Your task to perform on an android device: Play the last video I watched on Youtube Image 0: 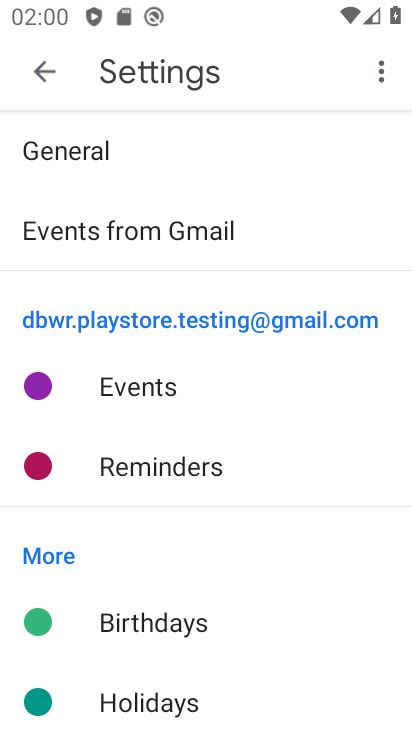
Step 0: press home button
Your task to perform on an android device: Play the last video I watched on Youtube Image 1: 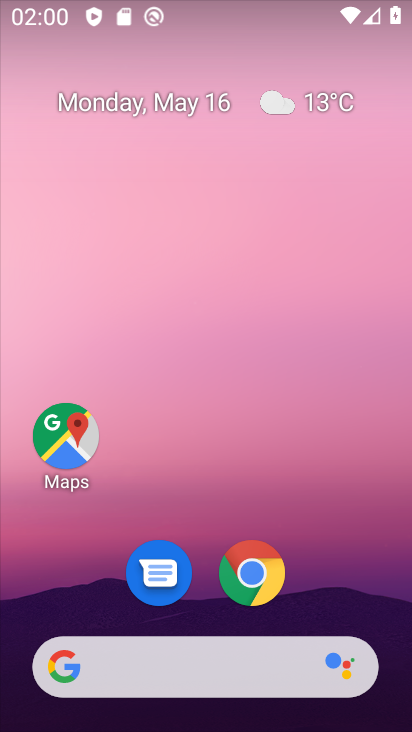
Step 1: drag from (211, 486) to (274, 15)
Your task to perform on an android device: Play the last video I watched on Youtube Image 2: 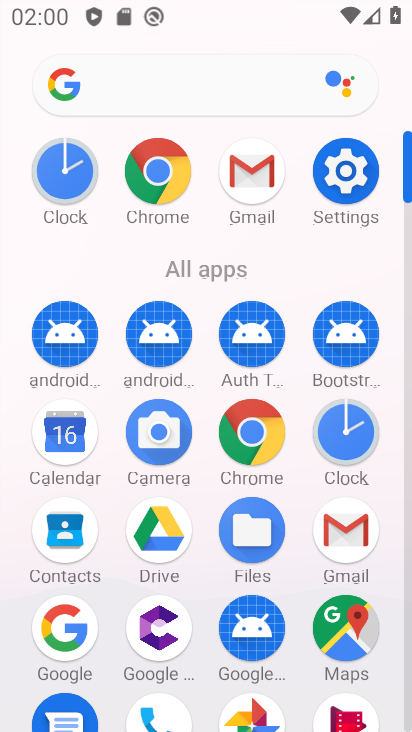
Step 2: drag from (192, 688) to (206, 263)
Your task to perform on an android device: Play the last video I watched on Youtube Image 3: 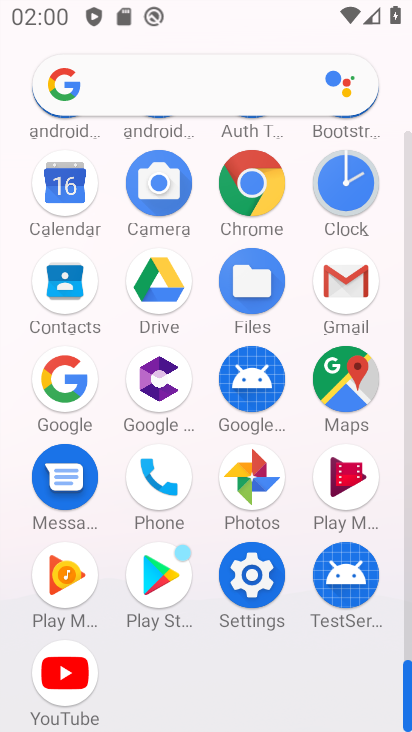
Step 3: click (83, 669)
Your task to perform on an android device: Play the last video I watched on Youtube Image 4: 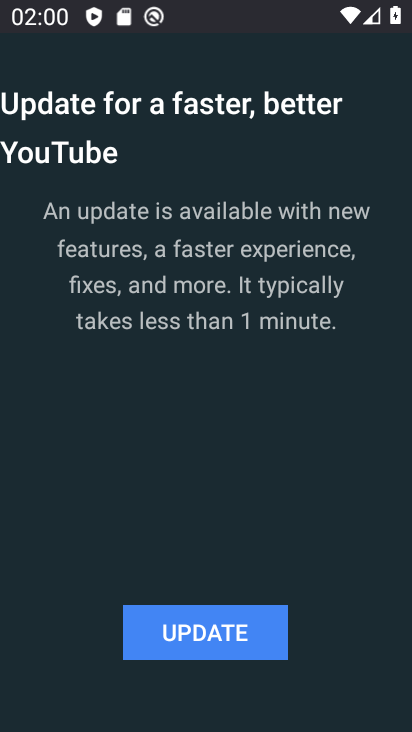
Step 4: click (232, 633)
Your task to perform on an android device: Play the last video I watched on Youtube Image 5: 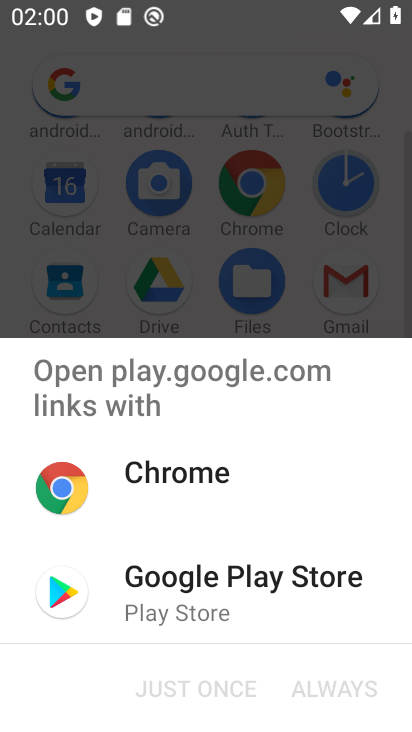
Step 5: click (217, 586)
Your task to perform on an android device: Play the last video I watched on Youtube Image 6: 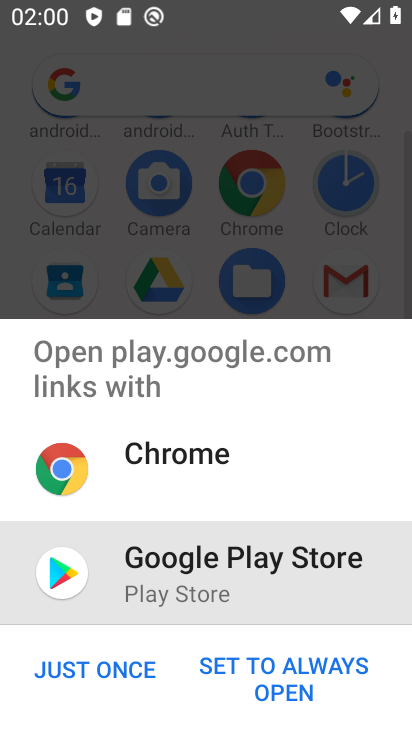
Step 6: click (102, 659)
Your task to perform on an android device: Play the last video I watched on Youtube Image 7: 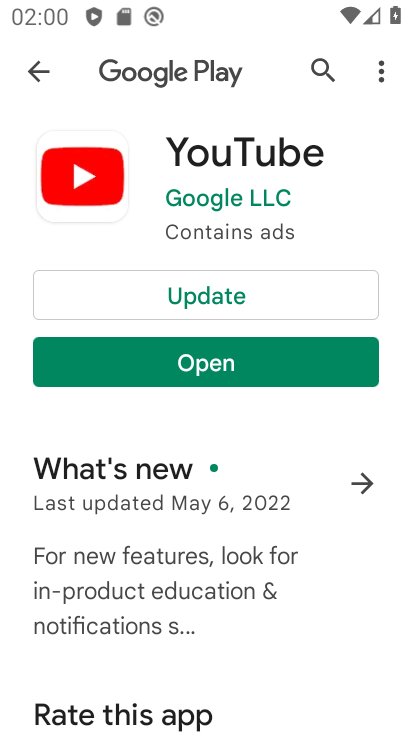
Step 7: click (228, 287)
Your task to perform on an android device: Play the last video I watched on Youtube Image 8: 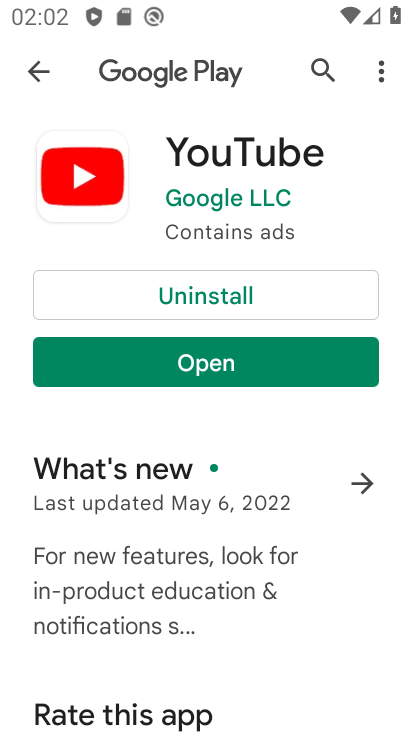
Step 8: click (231, 355)
Your task to perform on an android device: Play the last video I watched on Youtube Image 9: 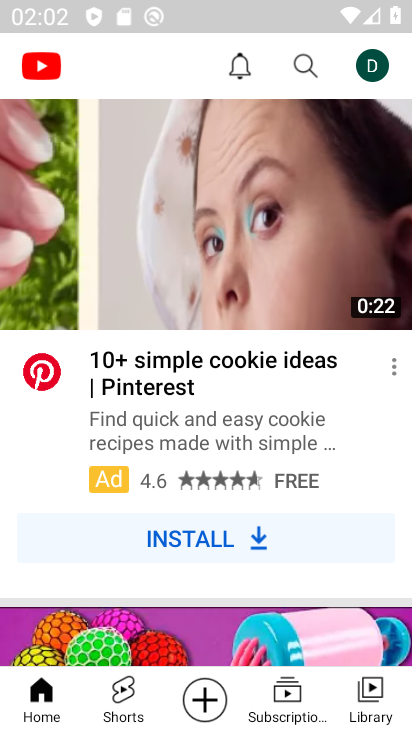
Step 9: click (374, 694)
Your task to perform on an android device: Play the last video I watched on Youtube Image 10: 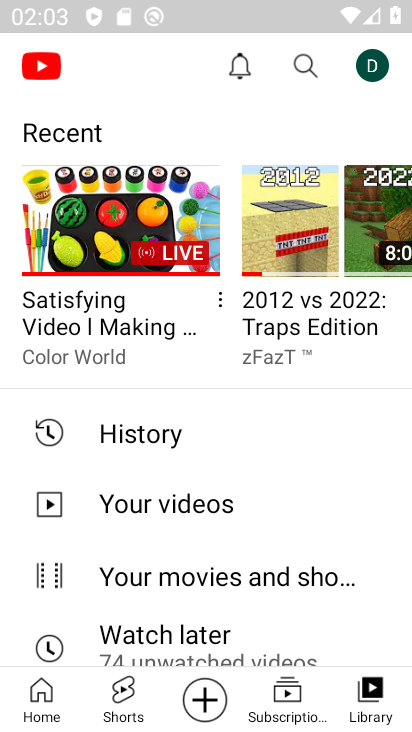
Step 10: click (143, 228)
Your task to perform on an android device: Play the last video I watched on Youtube Image 11: 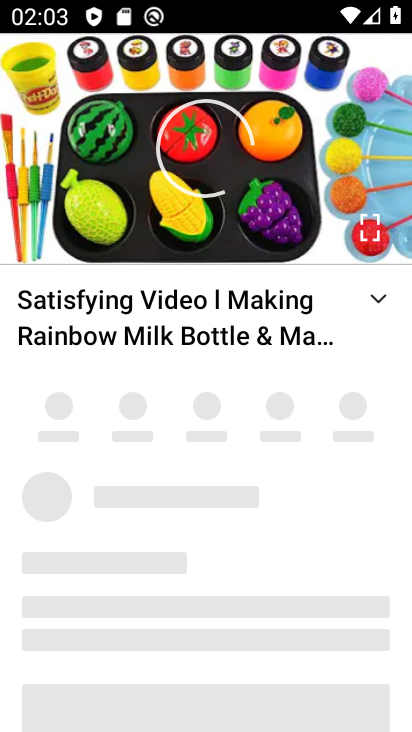
Step 11: click (143, 228)
Your task to perform on an android device: Play the last video I watched on Youtube Image 12: 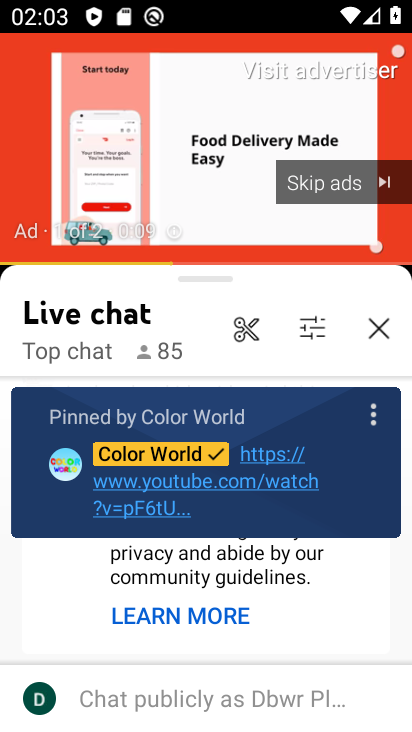
Step 12: click (381, 170)
Your task to perform on an android device: Play the last video I watched on Youtube Image 13: 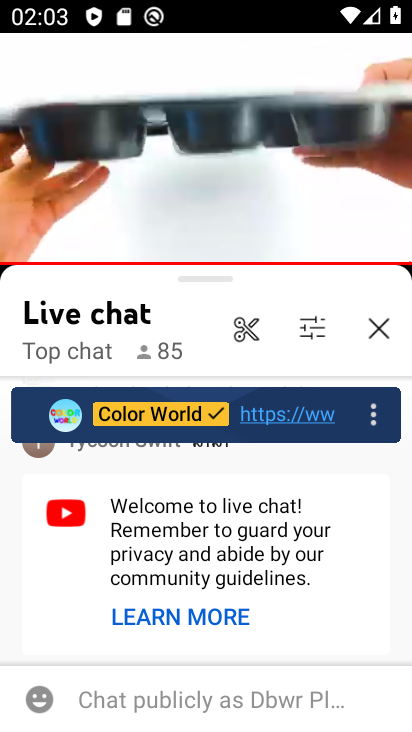
Step 13: task complete